Your task to perform on an android device: Go to Yahoo.com Image 0: 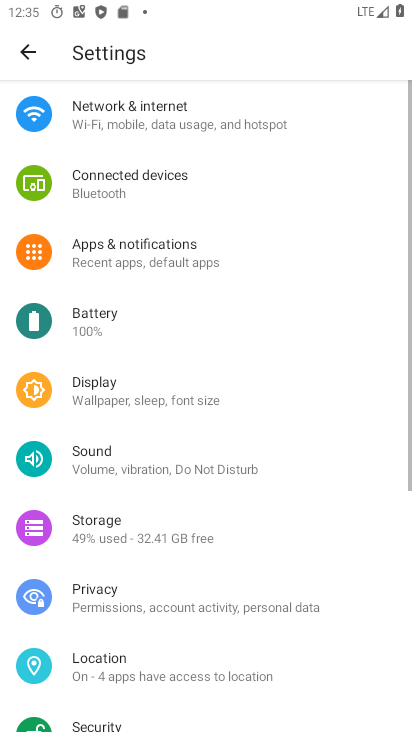
Step 0: press home button
Your task to perform on an android device: Go to Yahoo.com Image 1: 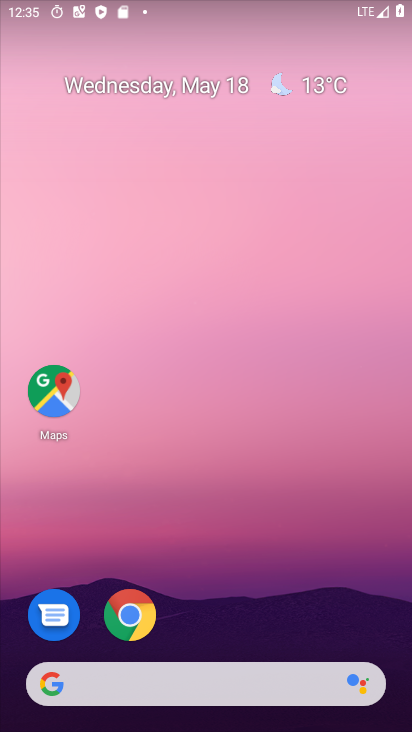
Step 1: drag from (176, 695) to (288, 140)
Your task to perform on an android device: Go to Yahoo.com Image 2: 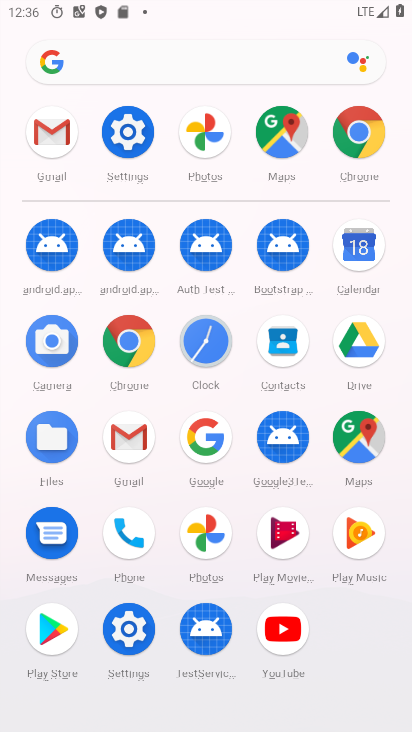
Step 2: click (133, 342)
Your task to perform on an android device: Go to Yahoo.com Image 3: 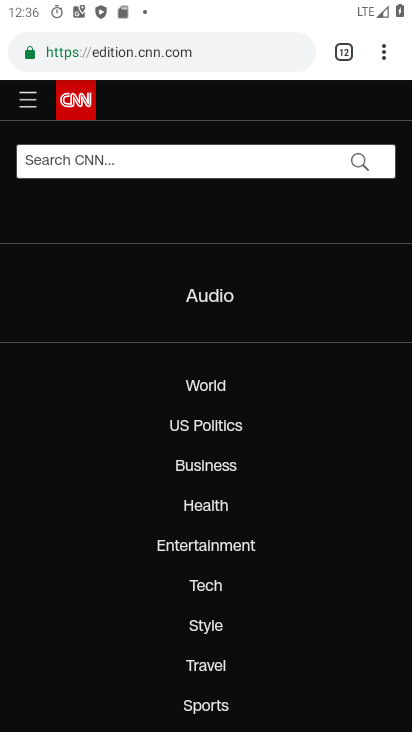
Step 3: drag from (380, 51) to (291, 109)
Your task to perform on an android device: Go to Yahoo.com Image 4: 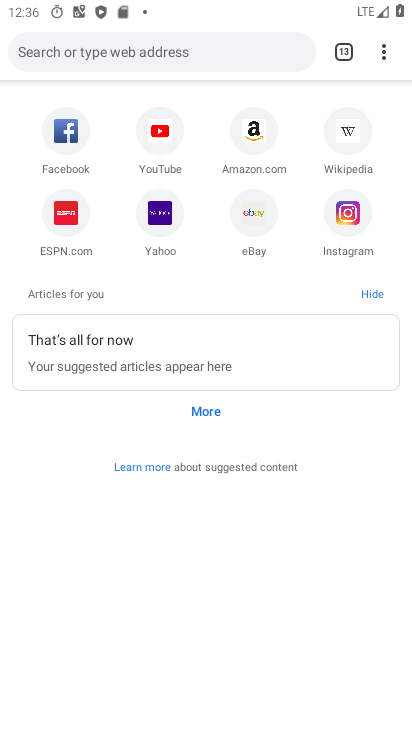
Step 4: click (163, 215)
Your task to perform on an android device: Go to Yahoo.com Image 5: 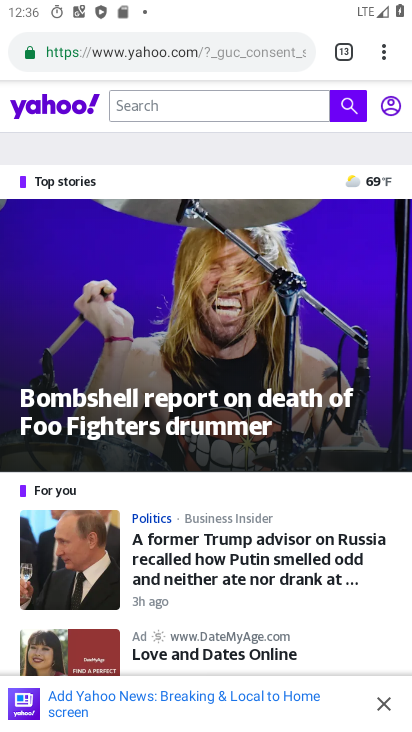
Step 5: task complete